Your task to perform on an android device: Show me popular videos on Youtube Image 0: 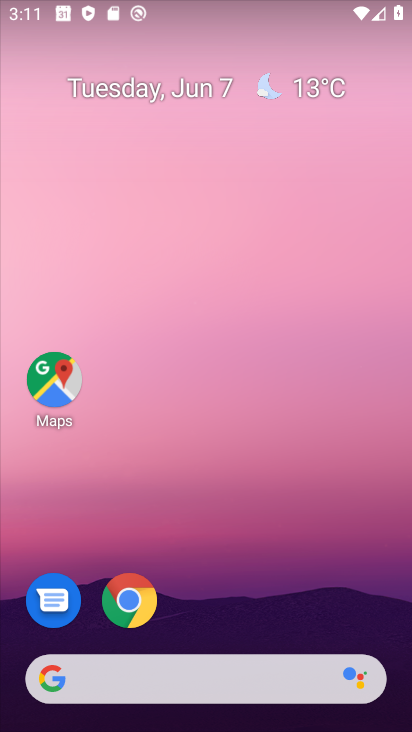
Step 0: drag from (221, 568) to (230, 66)
Your task to perform on an android device: Show me popular videos on Youtube Image 1: 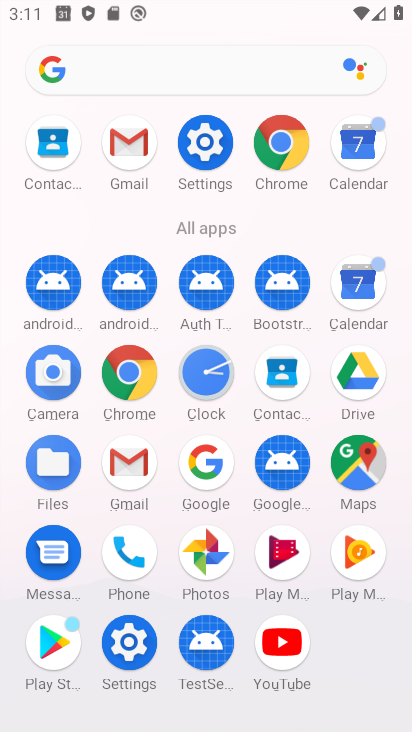
Step 1: click (283, 650)
Your task to perform on an android device: Show me popular videos on Youtube Image 2: 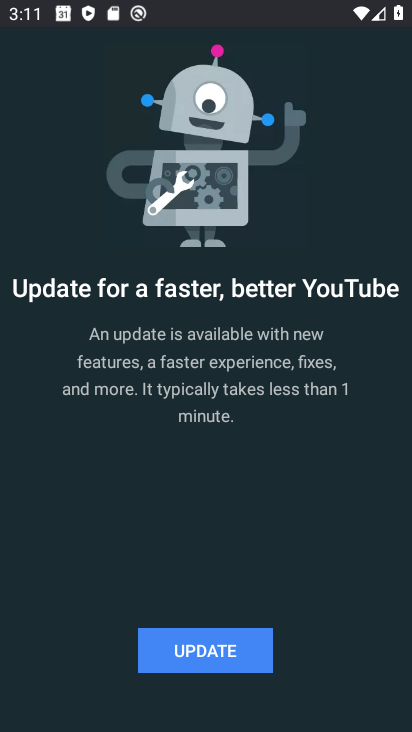
Step 2: click (189, 658)
Your task to perform on an android device: Show me popular videos on Youtube Image 3: 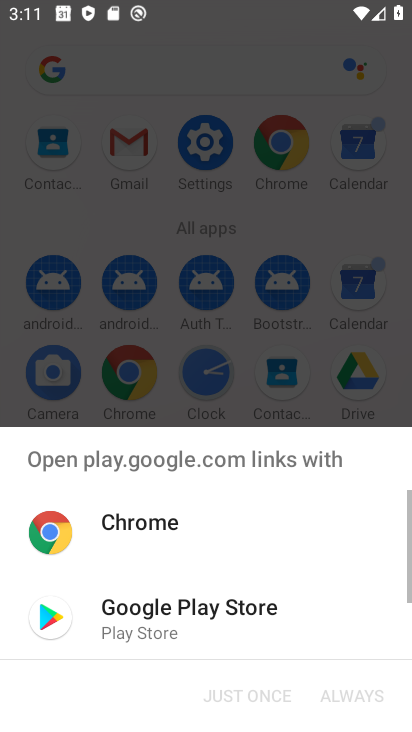
Step 3: click (186, 634)
Your task to perform on an android device: Show me popular videos on Youtube Image 4: 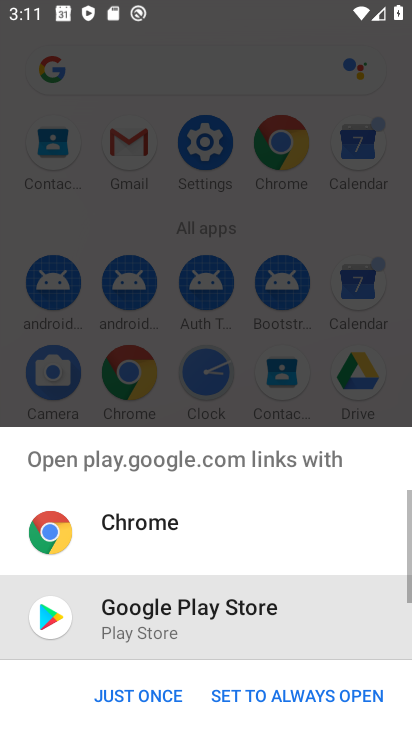
Step 4: click (171, 693)
Your task to perform on an android device: Show me popular videos on Youtube Image 5: 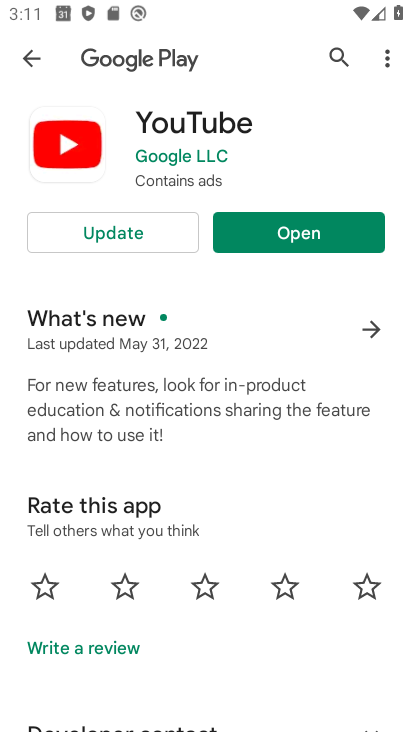
Step 5: click (128, 238)
Your task to perform on an android device: Show me popular videos on Youtube Image 6: 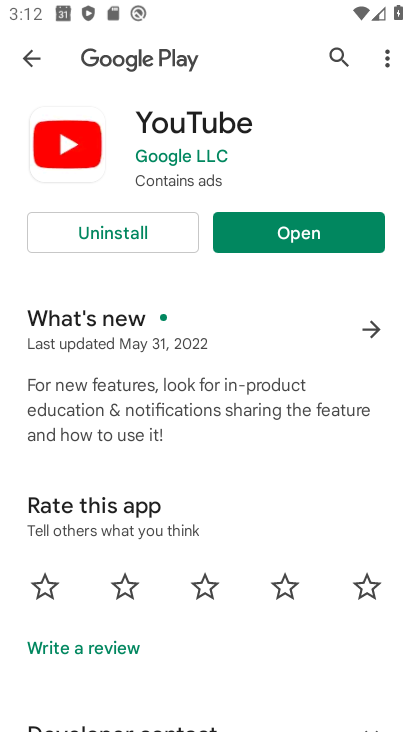
Step 6: click (302, 223)
Your task to perform on an android device: Show me popular videos on Youtube Image 7: 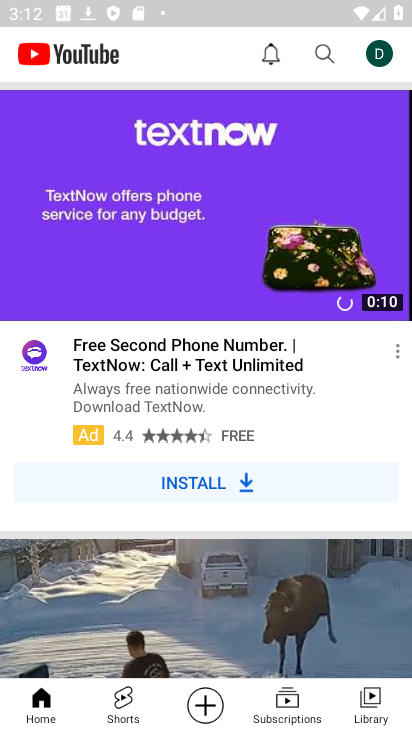
Step 7: task complete